Your task to perform on an android device: Go to network settings Image 0: 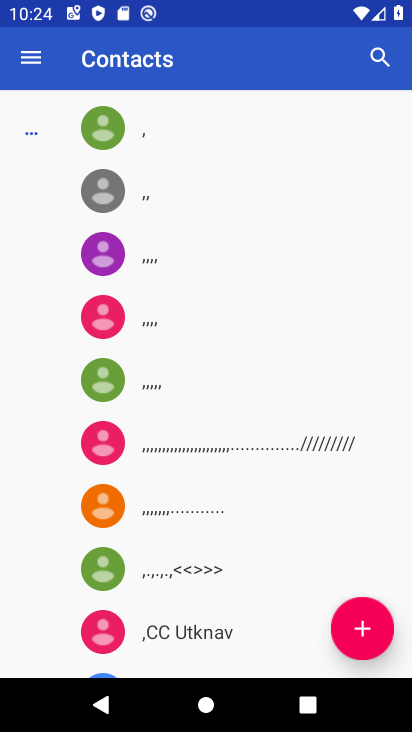
Step 0: press home button
Your task to perform on an android device: Go to network settings Image 1: 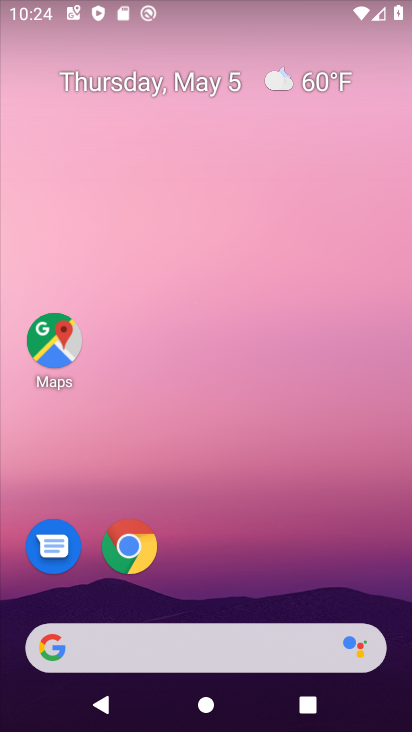
Step 1: drag from (224, 583) to (241, 196)
Your task to perform on an android device: Go to network settings Image 2: 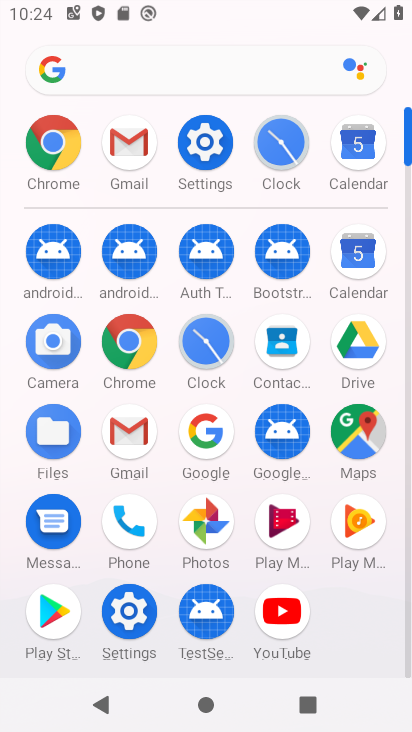
Step 2: click (137, 603)
Your task to perform on an android device: Go to network settings Image 3: 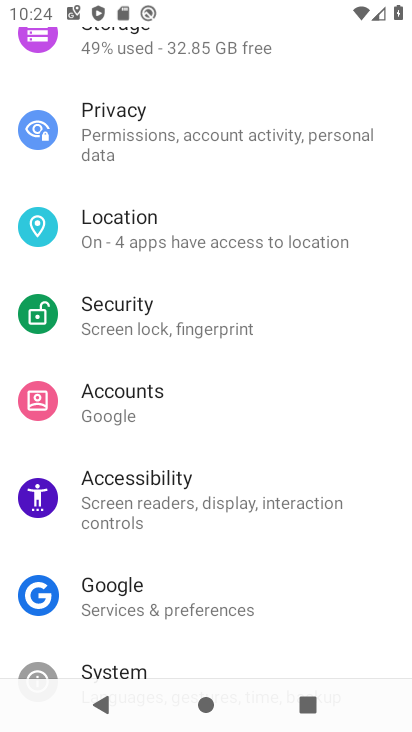
Step 3: drag from (117, 327) to (122, 452)
Your task to perform on an android device: Go to network settings Image 4: 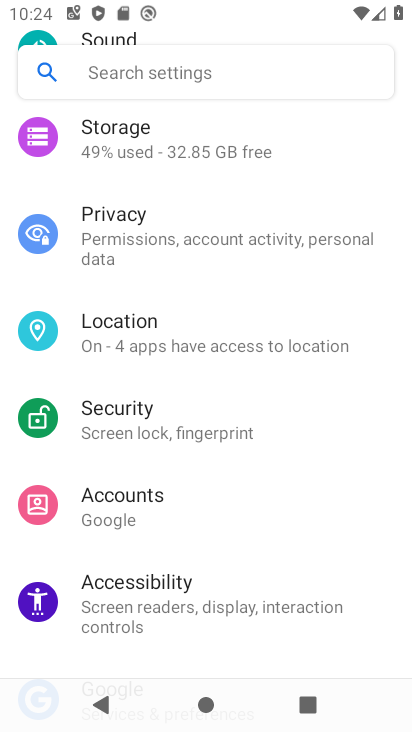
Step 4: drag from (111, 334) to (138, 416)
Your task to perform on an android device: Go to network settings Image 5: 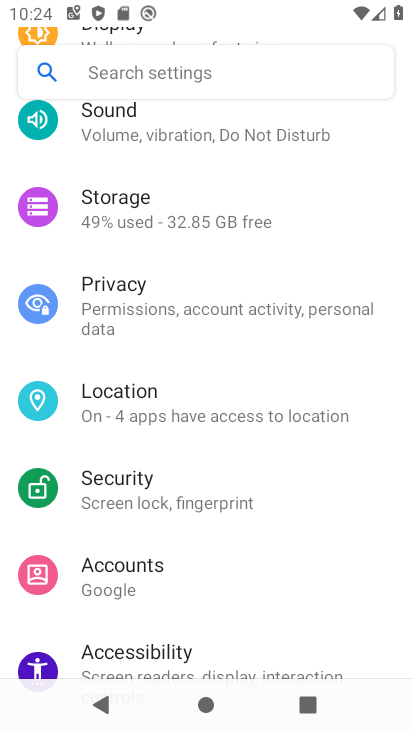
Step 5: drag from (130, 309) to (202, 496)
Your task to perform on an android device: Go to network settings Image 6: 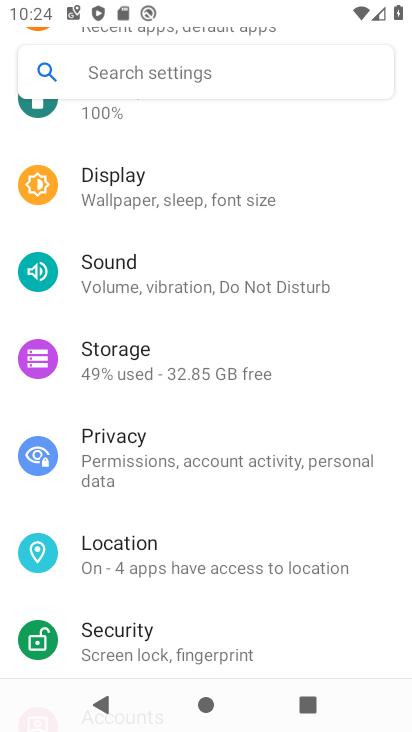
Step 6: drag from (174, 379) to (196, 446)
Your task to perform on an android device: Go to network settings Image 7: 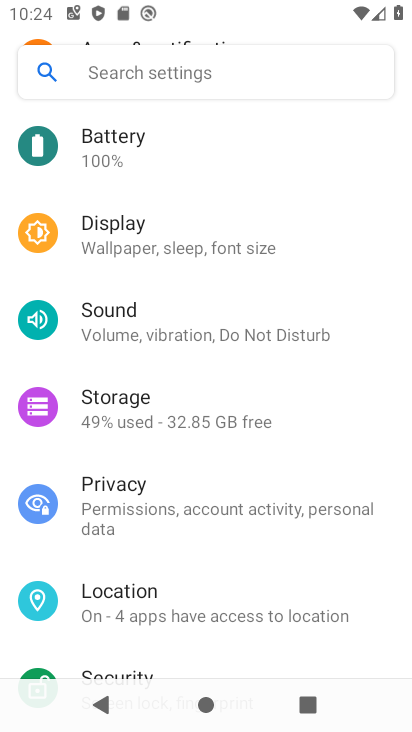
Step 7: drag from (187, 306) to (217, 433)
Your task to perform on an android device: Go to network settings Image 8: 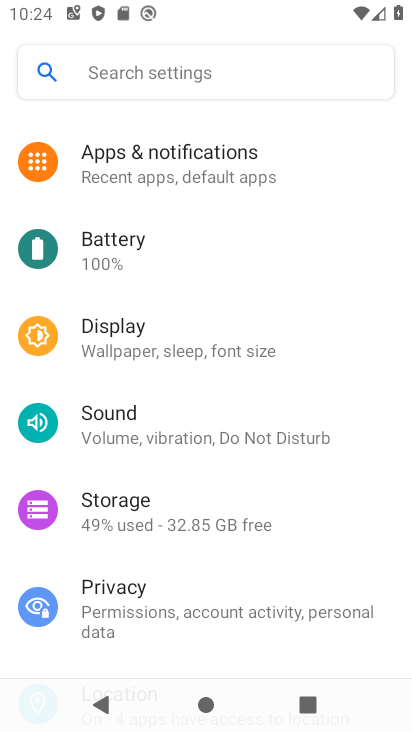
Step 8: drag from (194, 231) to (231, 363)
Your task to perform on an android device: Go to network settings Image 9: 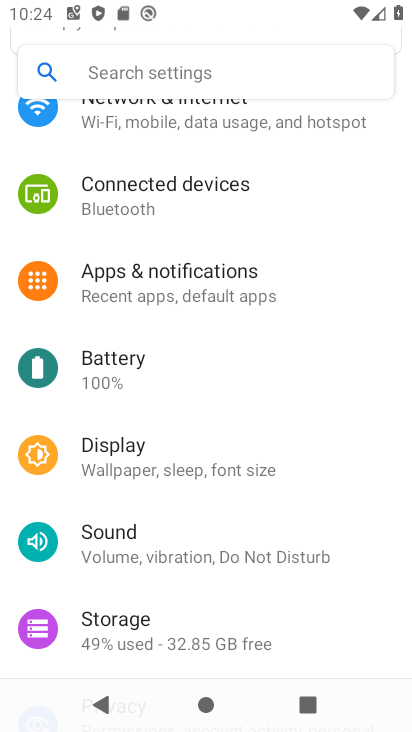
Step 9: click (177, 128)
Your task to perform on an android device: Go to network settings Image 10: 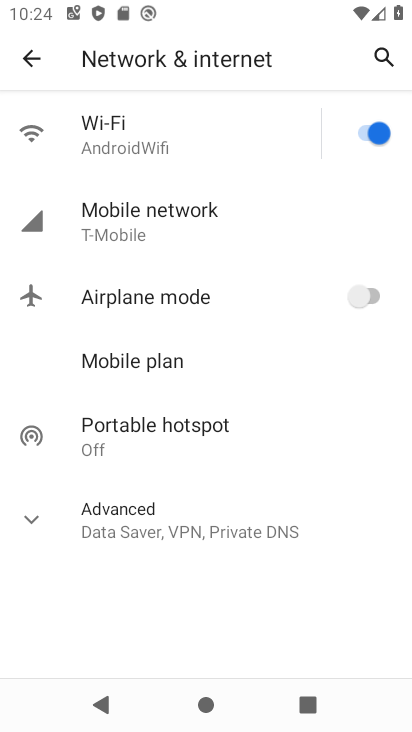
Step 10: click (254, 212)
Your task to perform on an android device: Go to network settings Image 11: 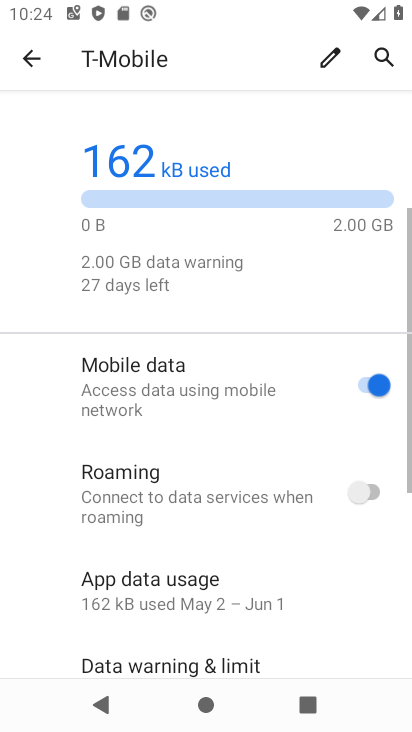
Step 11: task complete